Your task to perform on an android device: What's the weather going to be tomorrow? Image 0: 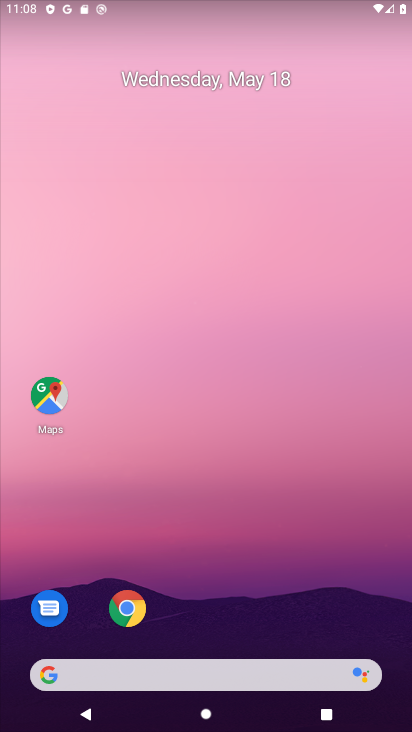
Step 0: click (134, 604)
Your task to perform on an android device: What's the weather going to be tomorrow? Image 1: 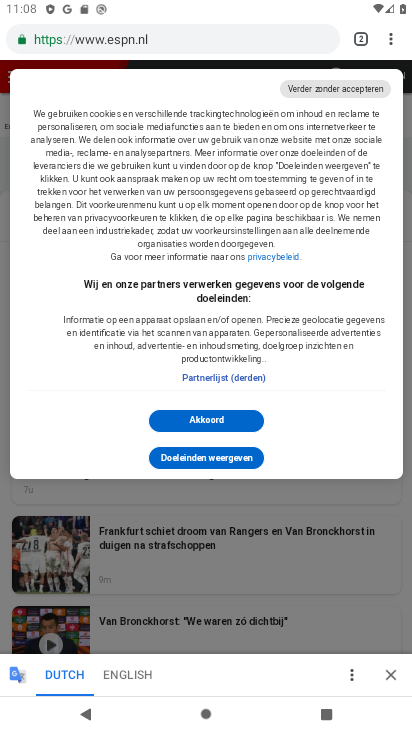
Step 1: click (353, 39)
Your task to perform on an android device: What's the weather going to be tomorrow? Image 2: 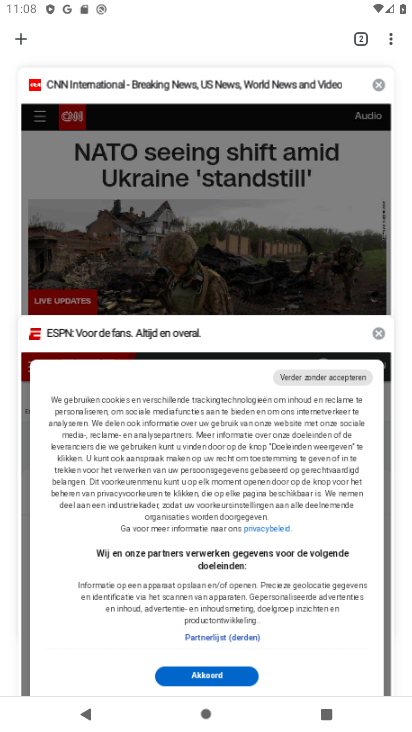
Step 2: click (22, 48)
Your task to perform on an android device: What's the weather going to be tomorrow? Image 3: 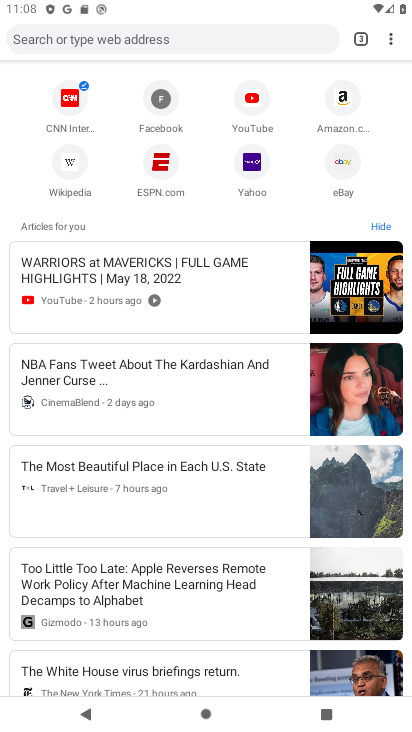
Step 3: click (139, 37)
Your task to perform on an android device: What's the weather going to be tomorrow? Image 4: 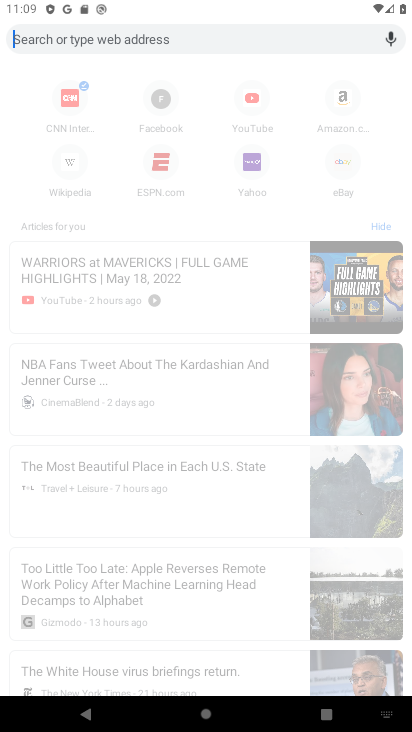
Step 4: type "what's the weather going to be tomorrow?"
Your task to perform on an android device: What's the weather going to be tomorrow? Image 5: 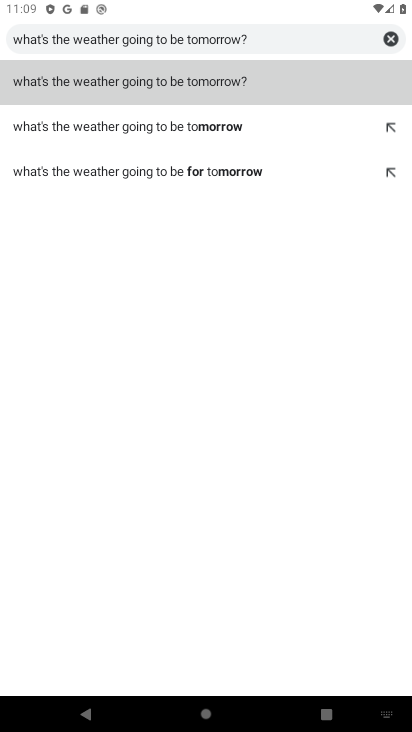
Step 5: click (161, 80)
Your task to perform on an android device: What's the weather going to be tomorrow? Image 6: 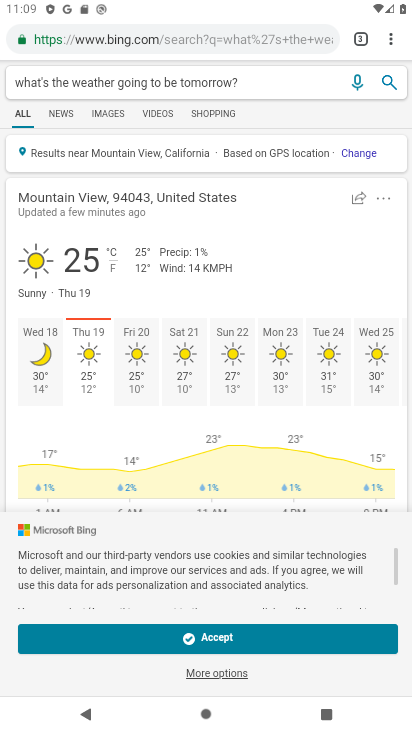
Step 6: task complete